Your task to perform on an android device: delete location history Image 0: 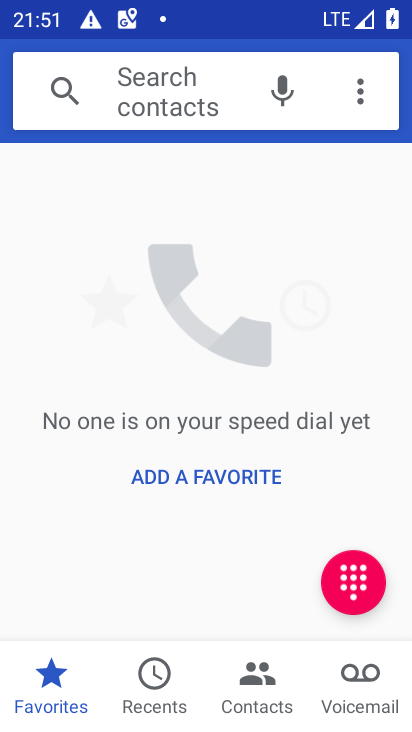
Step 0: press home button
Your task to perform on an android device: delete location history Image 1: 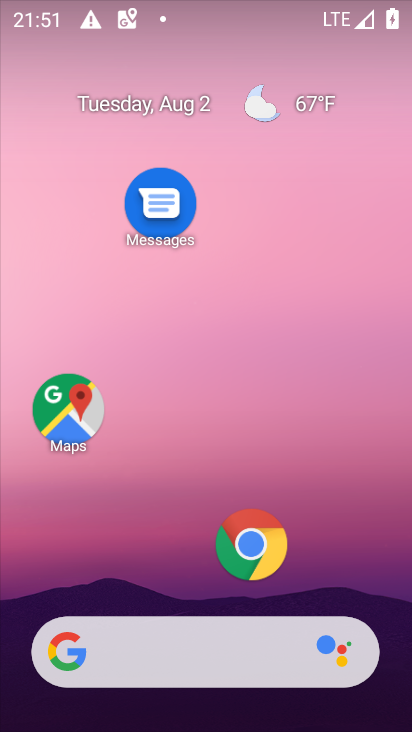
Step 1: click (72, 414)
Your task to perform on an android device: delete location history Image 2: 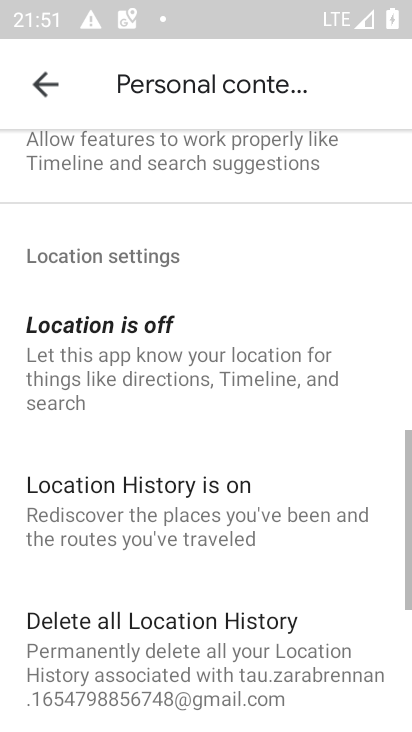
Step 2: click (196, 634)
Your task to perform on an android device: delete location history Image 3: 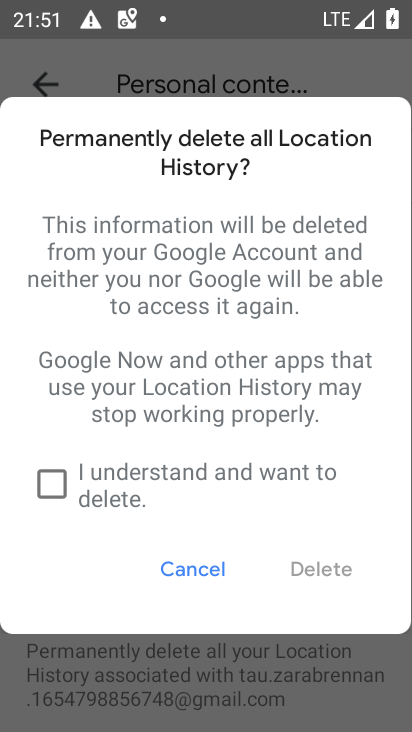
Step 3: click (98, 493)
Your task to perform on an android device: delete location history Image 4: 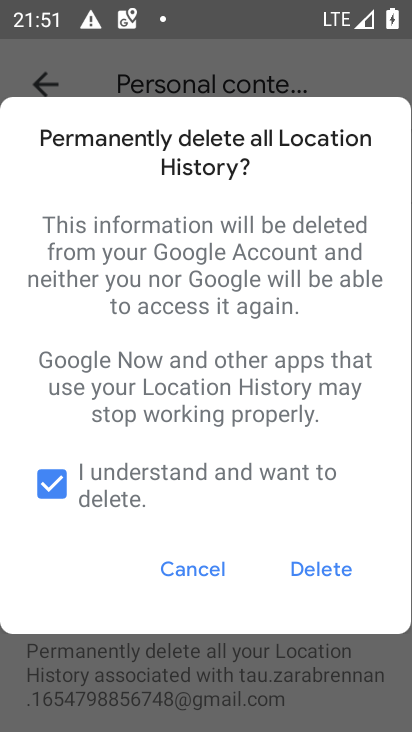
Step 4: click (289, 559)
Your task to perform on an android device: delete location history Image 5: 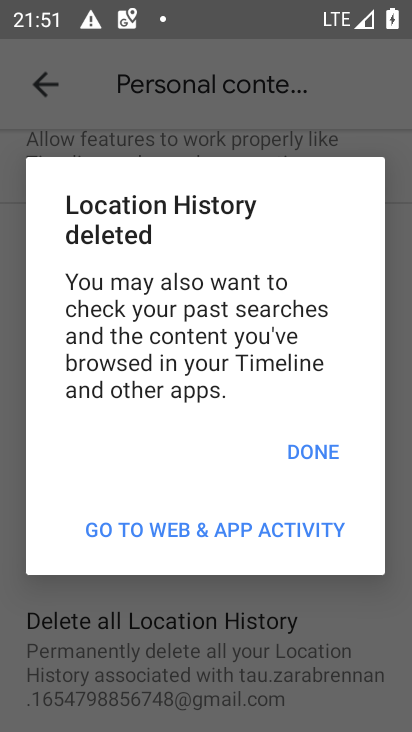
Step 5: click (309, 454)
Your task to perform on an android device: delete location history Image 6: 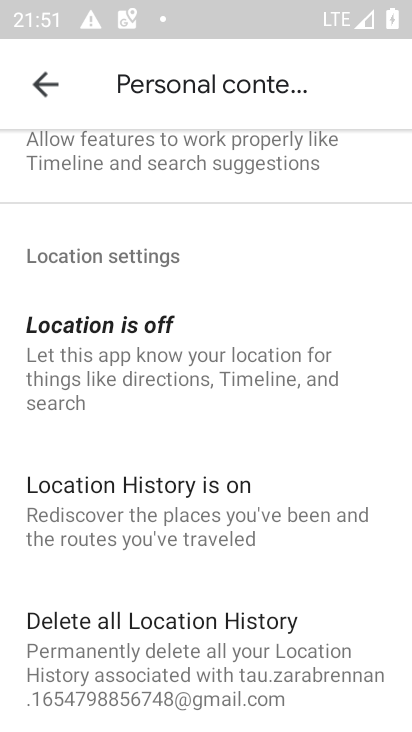
Step 6: task complete